Your task to perform on an android device: delete location history Image 0: 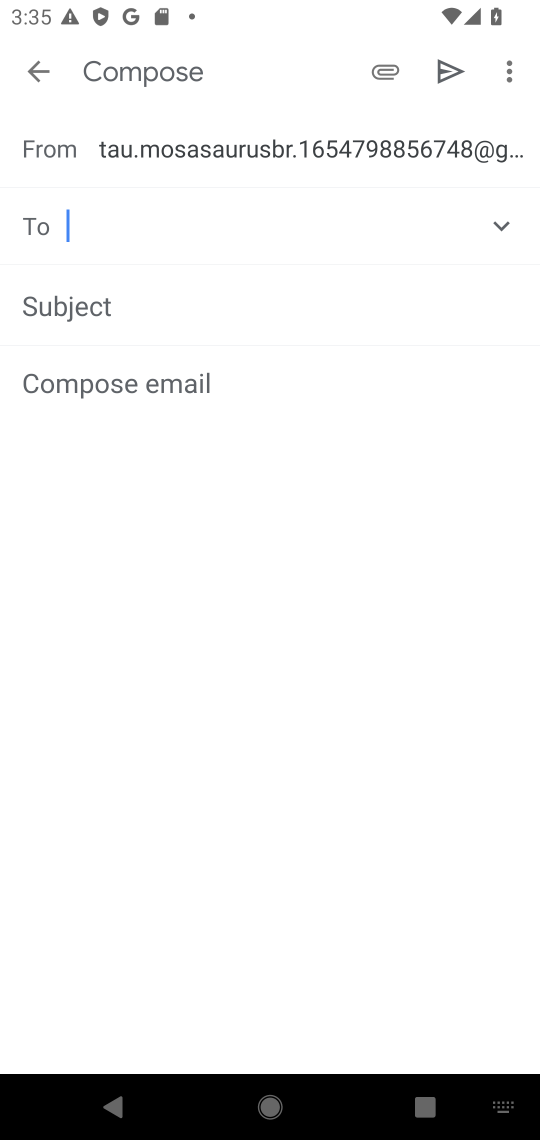
Step 0: press home button
Your task to perform on an android device: delete location history Image 1: 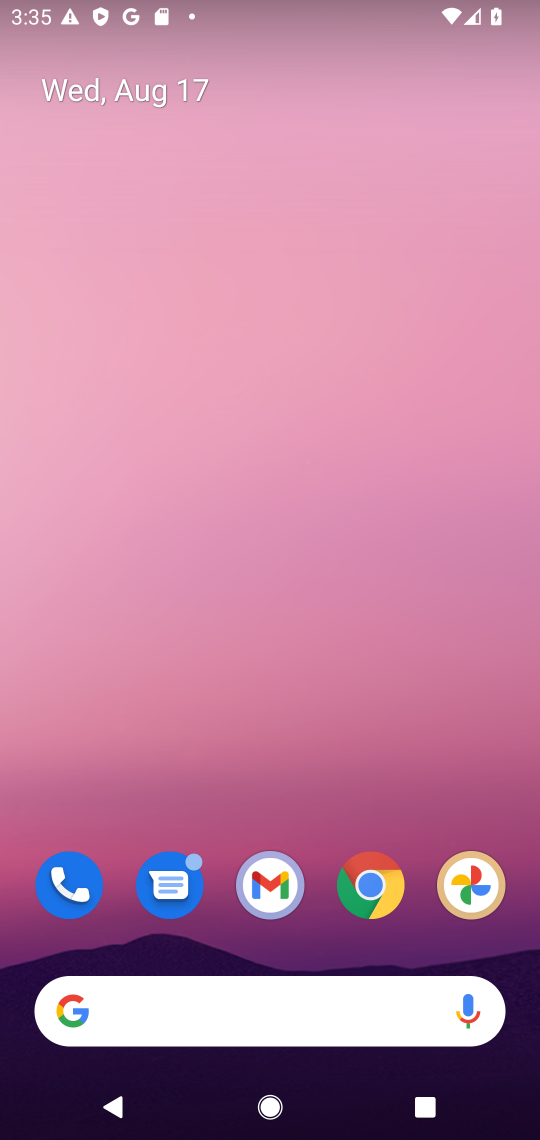
Step 1: drag from (216, 1012) to (332, 443)
Your task to perform on an android device: delete location history Image 2: 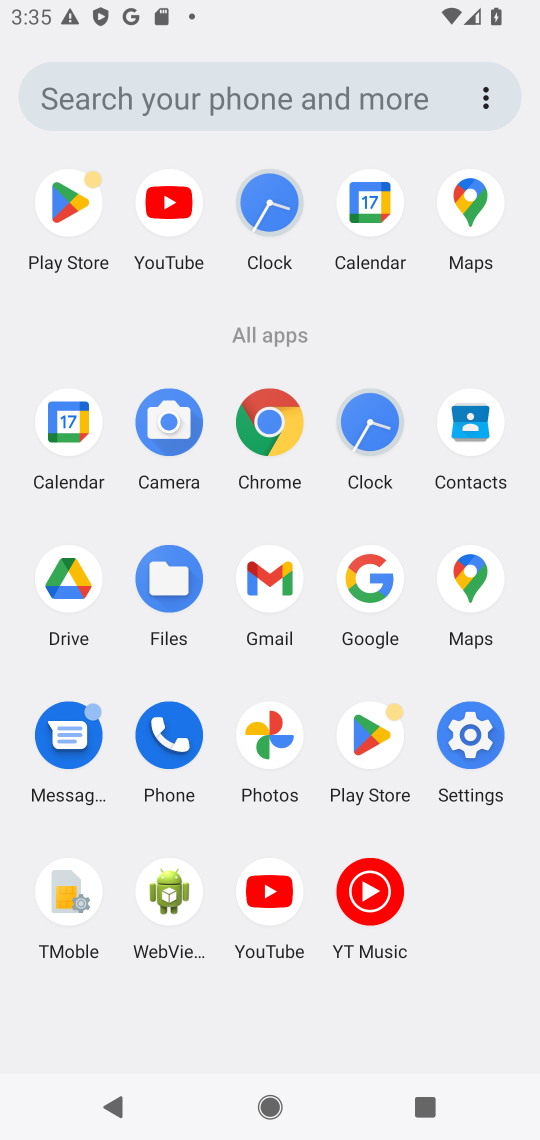
Step 2: click (472, 205)
Your task to perform on an android device: delete location history Image 3: 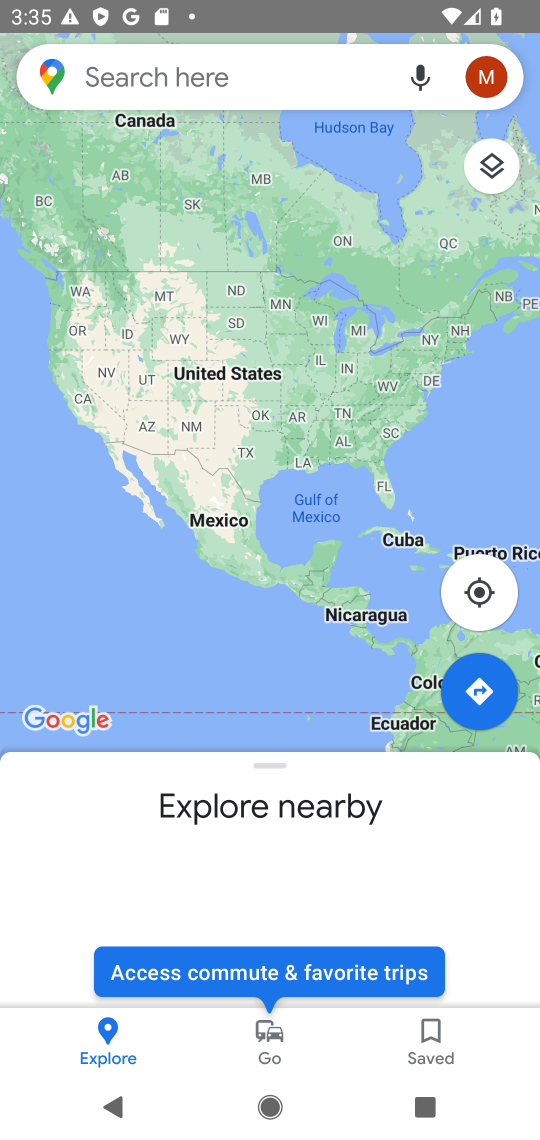
Step 3: click (484, 77)
Your task to perform on an android device: delete location history Image 4: 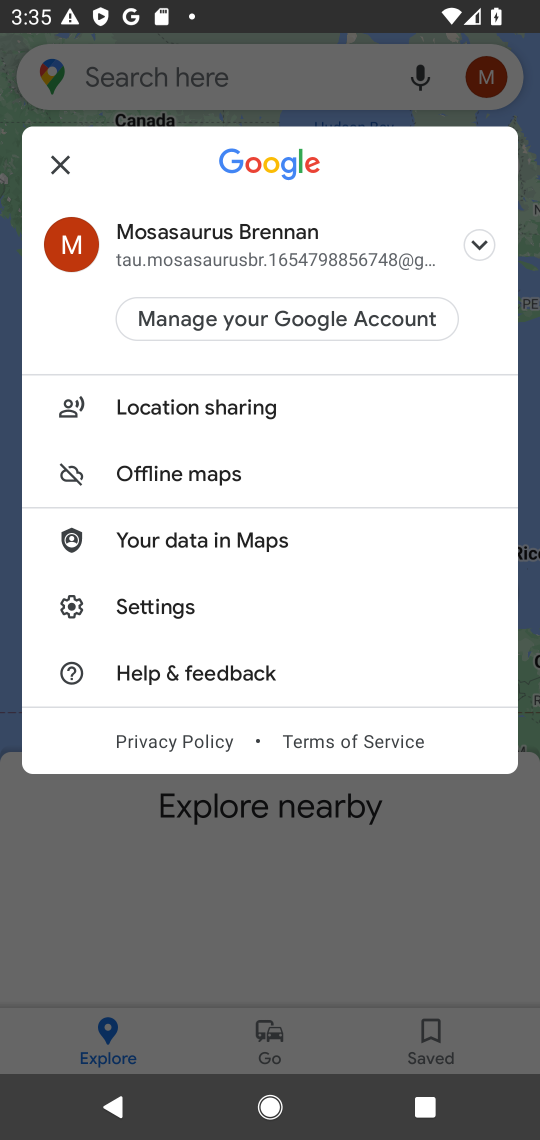
Step 4: click (175, 606)
Your task to perform on an android device: delete location history Image 5: 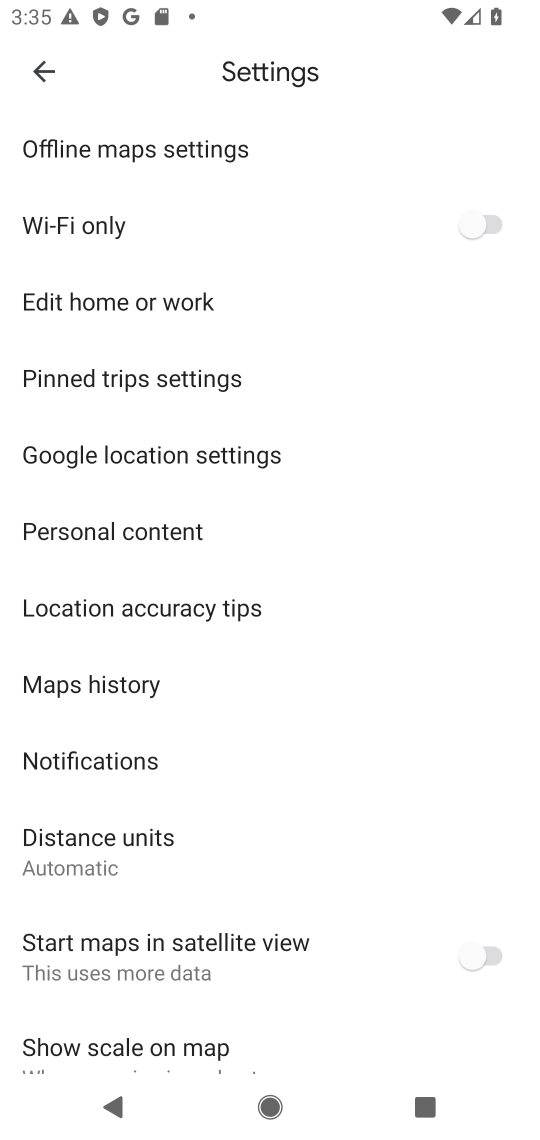
Step 5: click (130, 535)
Your task to perform on an android device: delete location history Image 6: 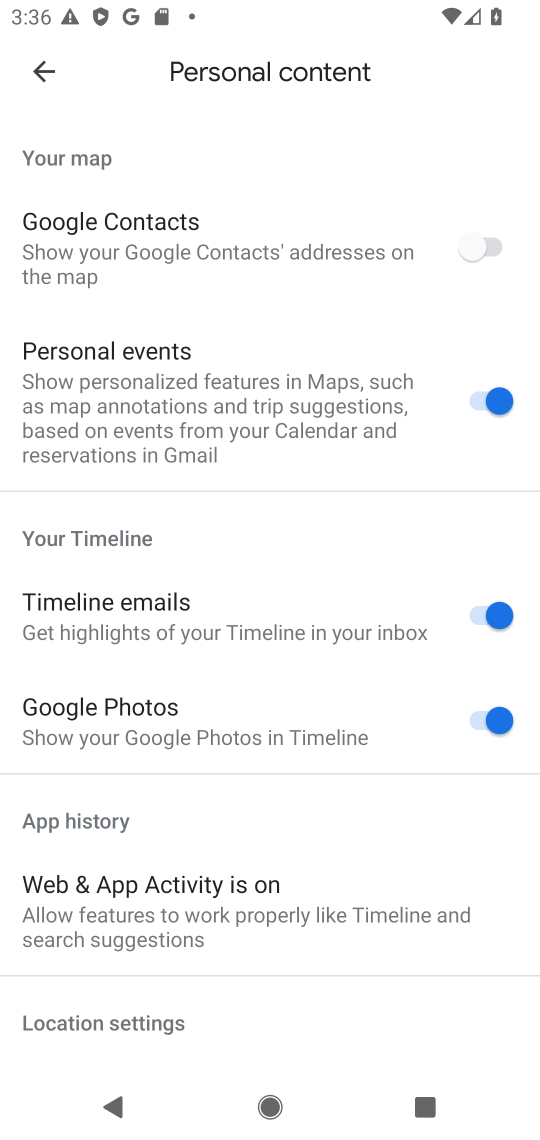
Step 6: drag from (125, 807) to (221, 618)
Your task to perform on an android device: delete location history Image 7: 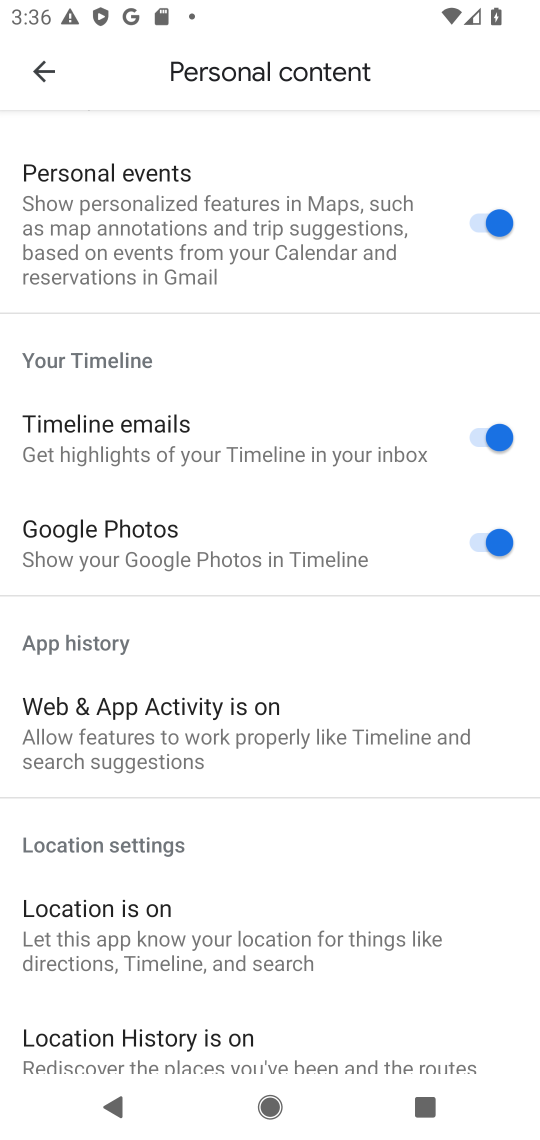
Step 7: drag from (212, 835) to (260, 693)
Your task to perform on an android device: delete location history Image 8: 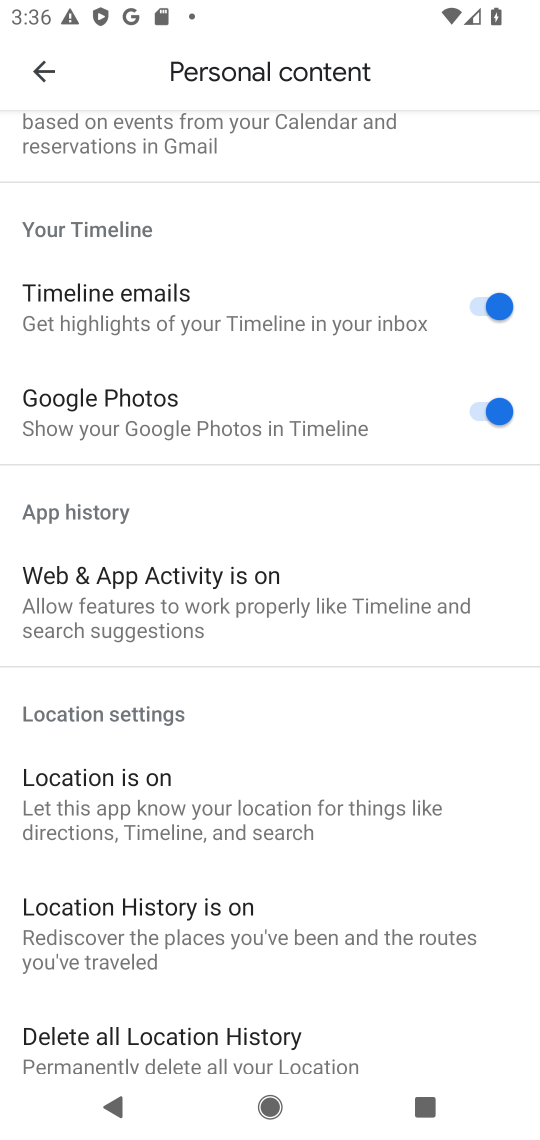
Step 8: drag from (176, 859) to (277, 689)
Your task to perform on an android device: delete location history Image 9: 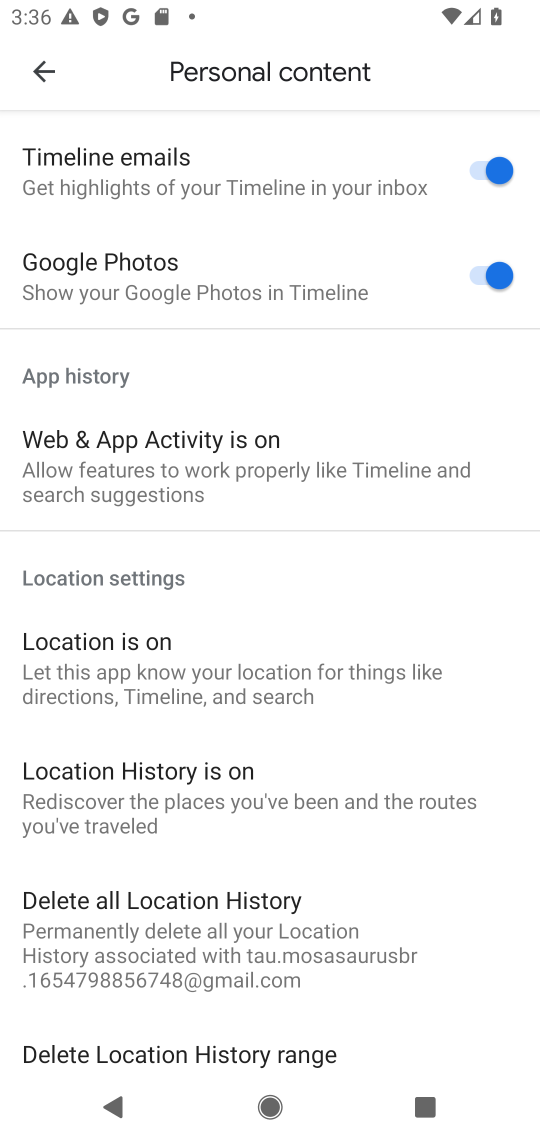
Step 9: drag from (231, 872) to (322, 709)
Your task to perform on an android device: delete location history Image 10: 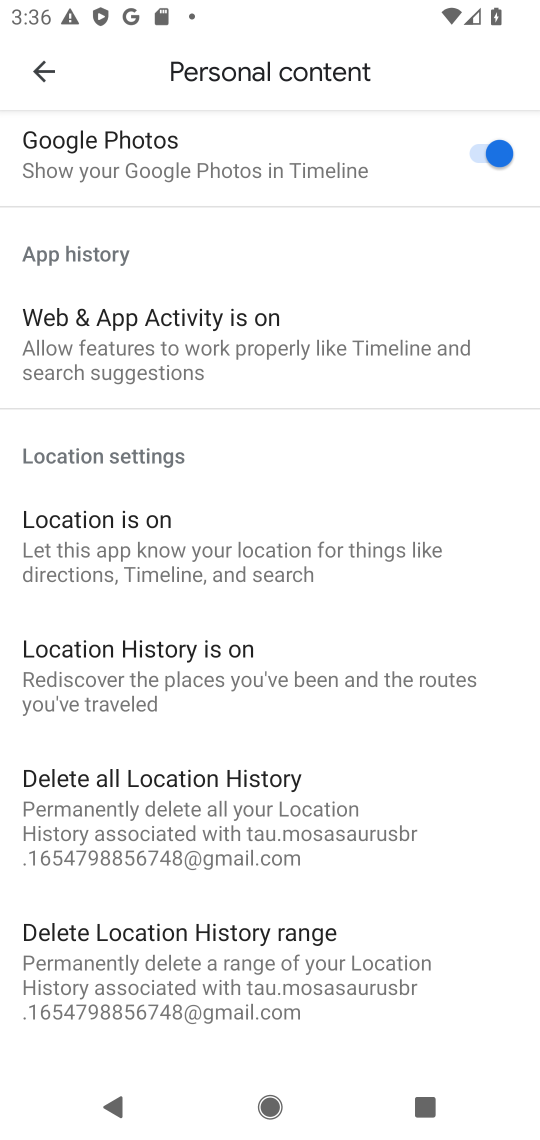
Step 10: click (243, 786)
Your task to perform on an android device: delete location history Image 11: 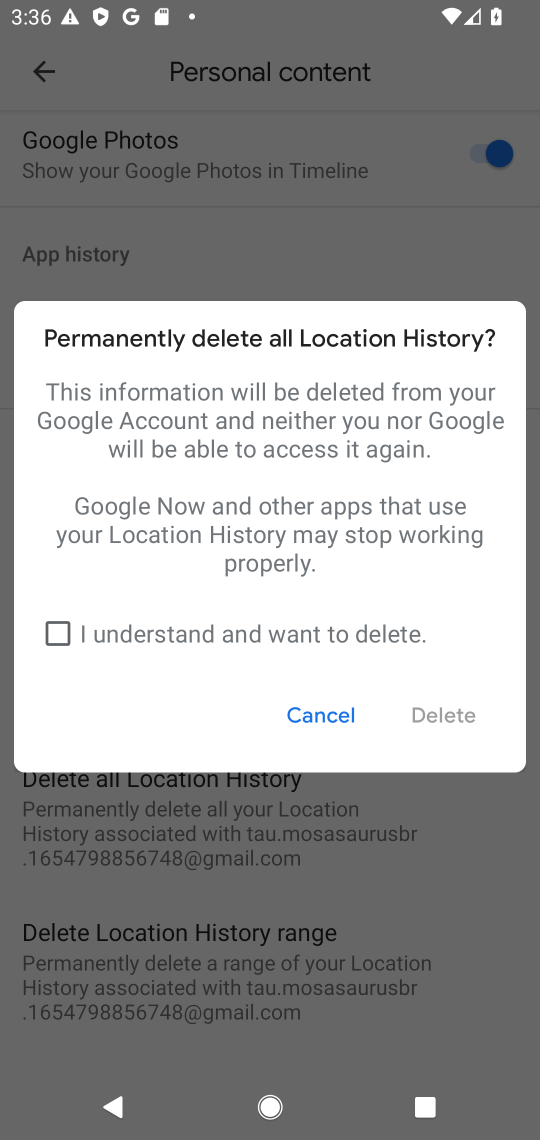
Step 11: click (58, 631)
Your task to perform on an android device: delete location history Image 12: 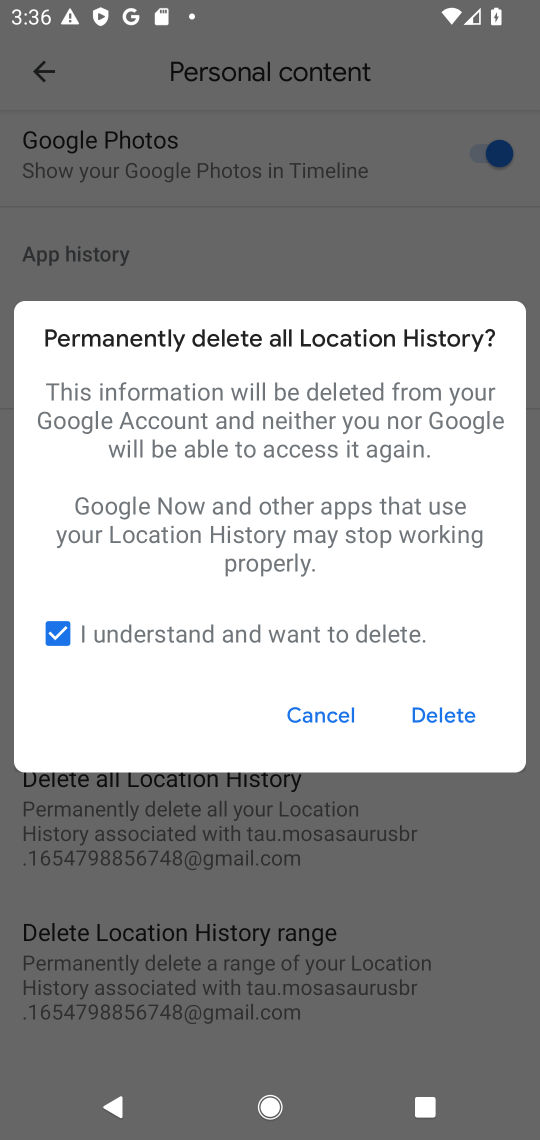
Step 12: click (434, 717)
Your task to perform on an android device: delete location history Image 13: 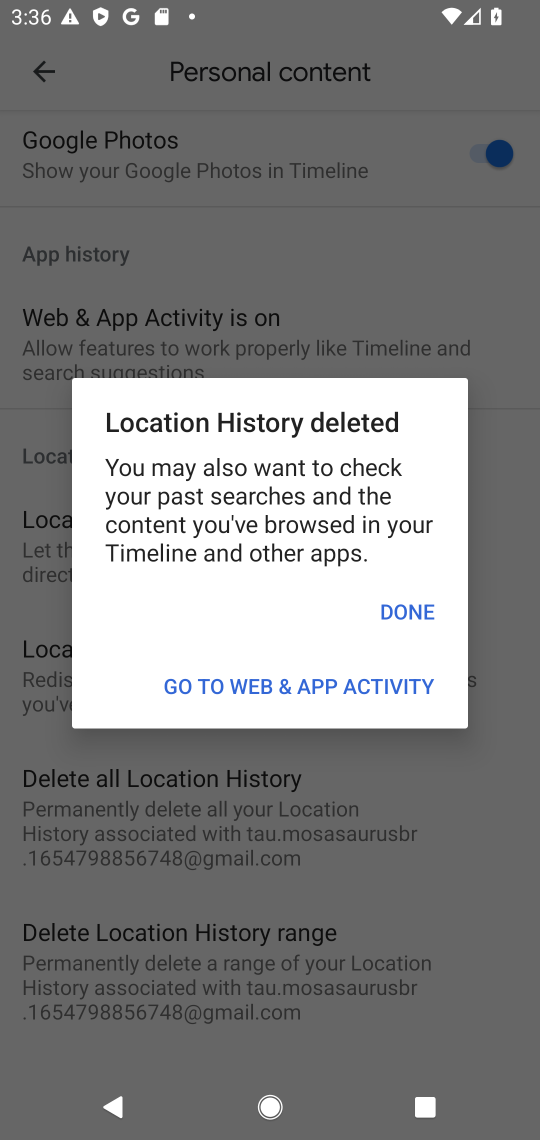
Step 13: click (403, 617)
Your task to perform on an android device: delete location history Image 14: 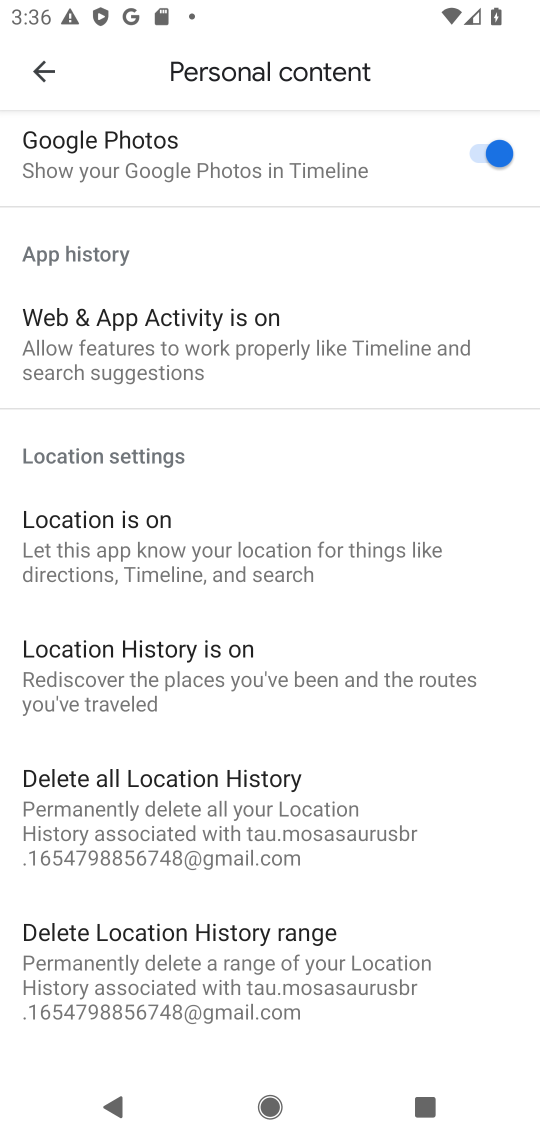
Step 14: task complete